Your task to perform on an android device: Search for Mexican restaurants on Maps Image 0: 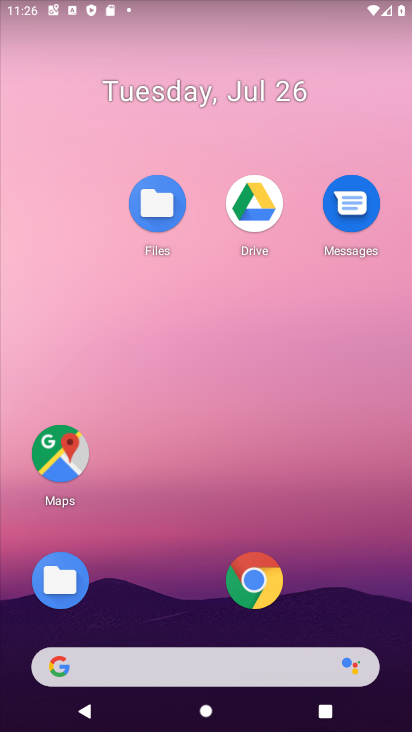
Step 0: click (65, 449)
Your task to perform on an android device: Search for Mexican restaurants on Maps Image 1: 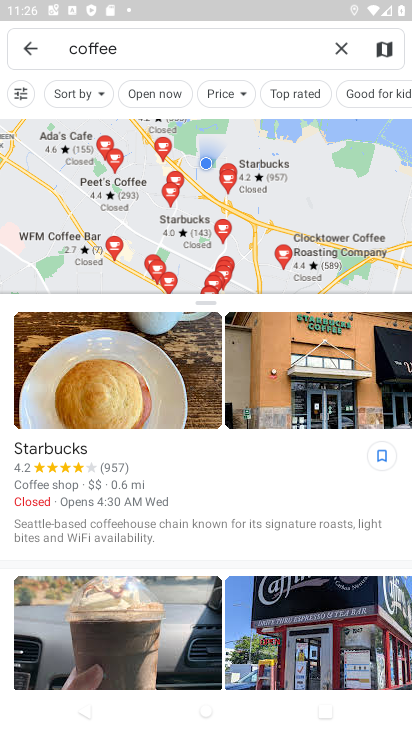
Step 1: click (339, 50)
Your task to perform on an android device: Search for Mexican restaurants on Maps Image 2: 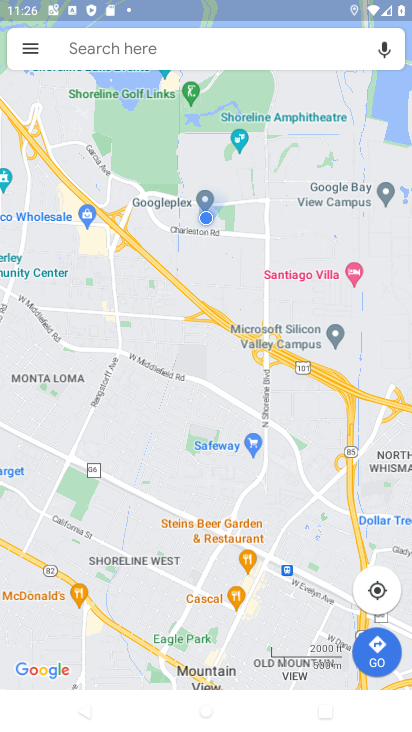
Step 2: click (242, 48)
Your task to perform on an android device: Search for Mexican restaurants on Maps Image 3: 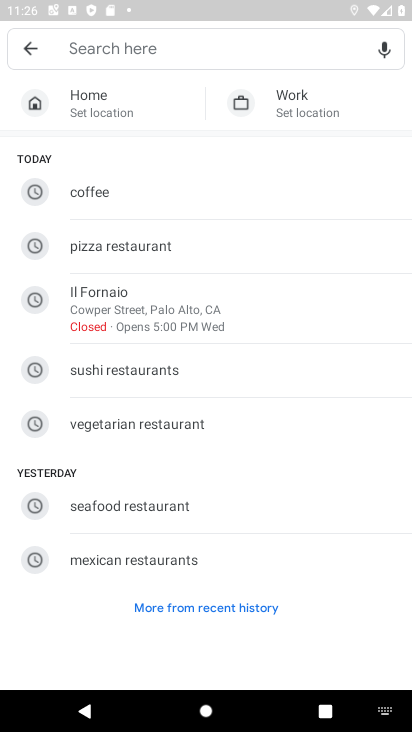
Step 3: click (196, 565)
Your task to perform on an android device: Search for Mexican restaurants on Maps Image 4: 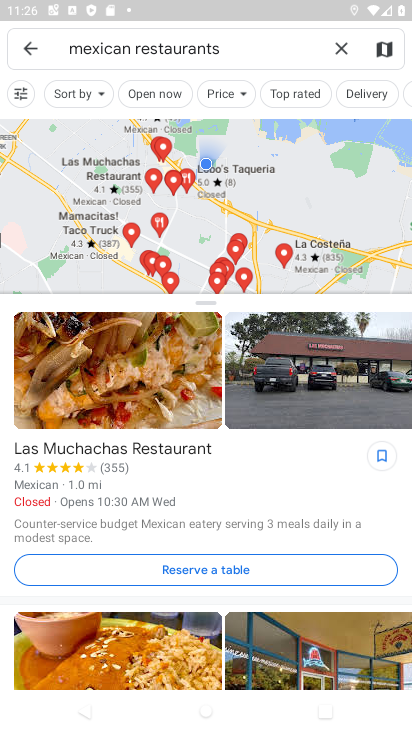
Step 4: task complete